Your task to perform on an android device: Go to CNN.com Image 0: 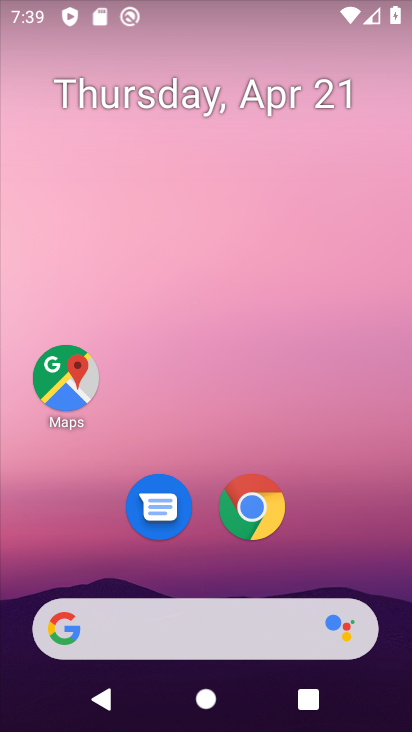
Step 0: drag from (335, 597) to (362, 35)
Your task to perform on an android device: Go to CNN.com Image 1: 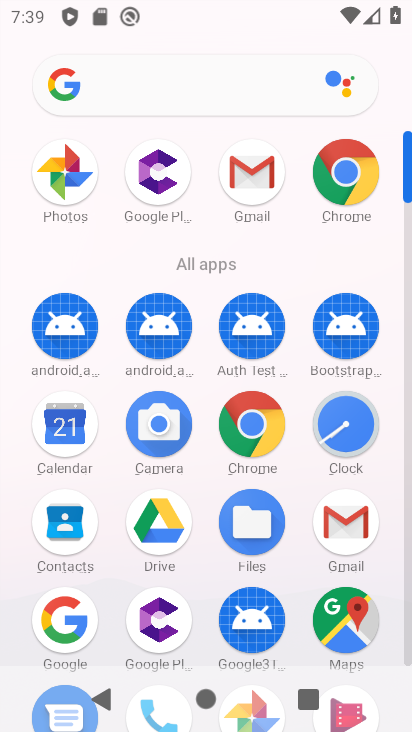
Step 1: click (253, 414)
Your task to perform on an android device: Go to CNN.com Image 2: 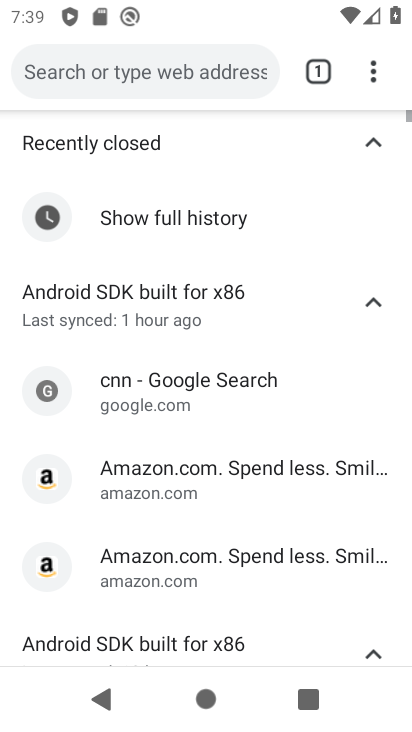
Step 2: click (254, 82)
Your task to perform on an android device: Go to CNN.com Image 3: 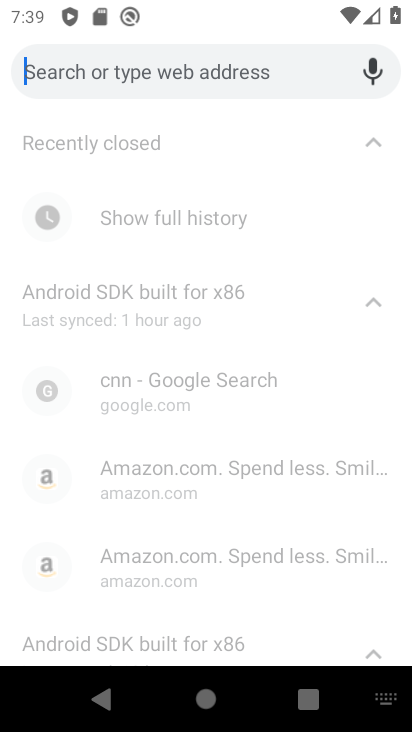
Step 3: type "cnn.com"
Your task to perform on an android device: Go to CNN.com Image 4: 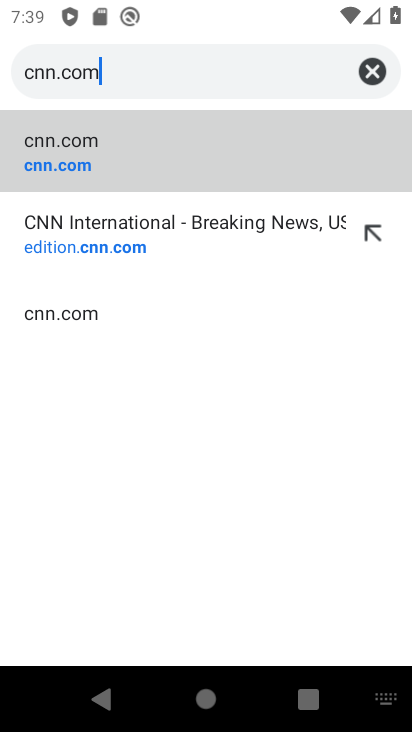
Step 4: click (66, 158)
Your task to perform on an android device: Go to CNN.com Image 5: 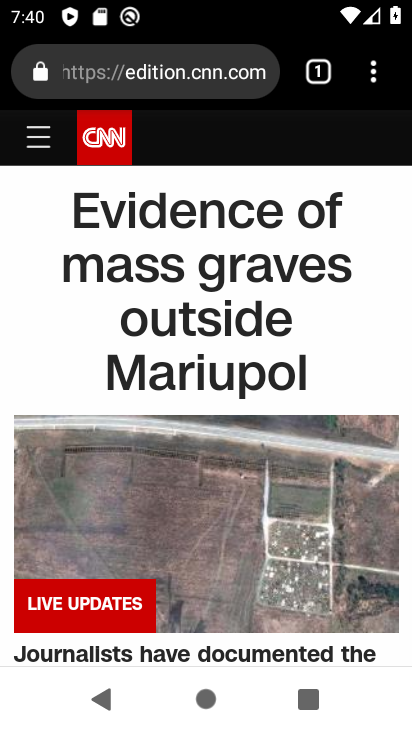
Step 5: task complete